Your task to perform on an android device: Go to privacy settings Image 0: 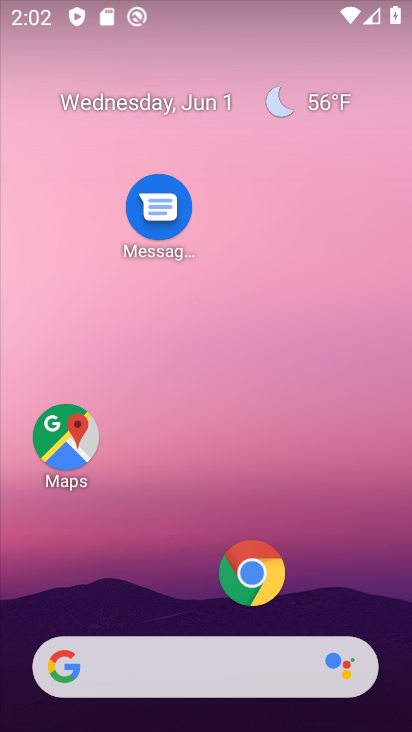
Step 0: drag from (297, 27) to (247, 2)
Your task to perform on an android device: Go to privacy settings Image 1: 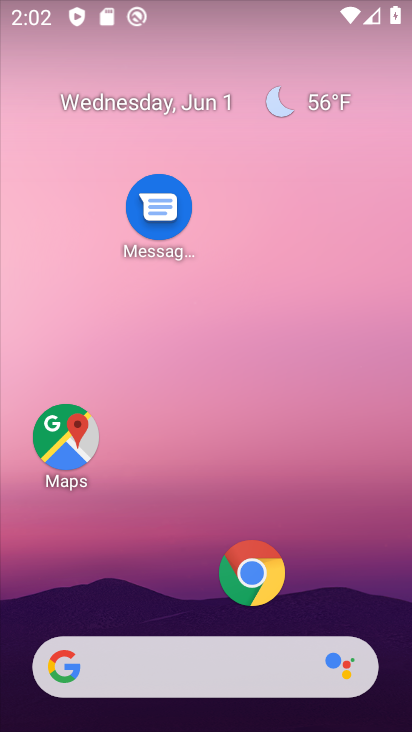
Step 1: click (208, 168)
Your task to perform on an android device: Go to privacy settings Image 2: 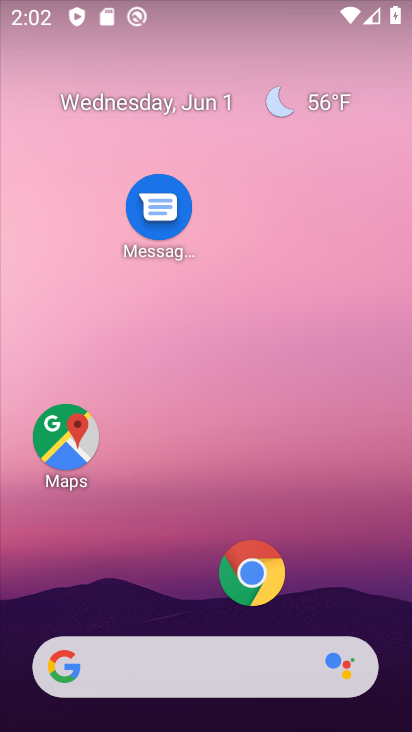
Step 2: drag from (221, 590) to (313, 143)
Your task to perform on an android device: Go to privacy settings Image 3: 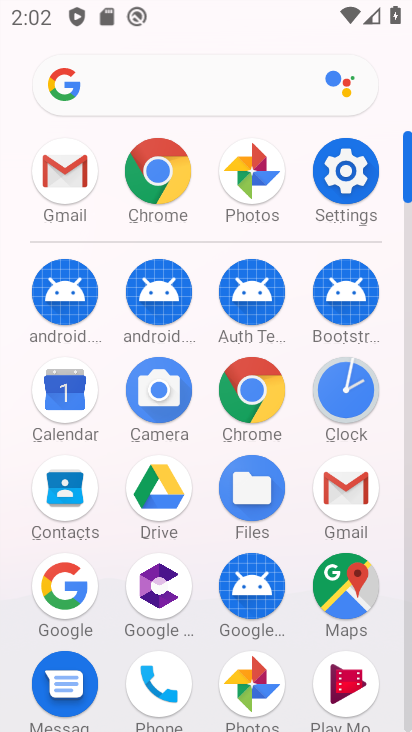
Step 3: click (354, 170)
Your task to perform on an android device: Go to privacy settings Image 4: 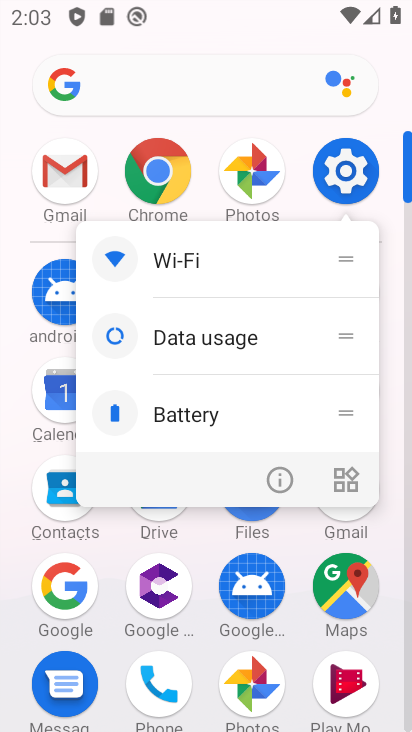
Step 4: click (280, 482)
Your task to perform on an android device: Go to privacy settings Image 5: 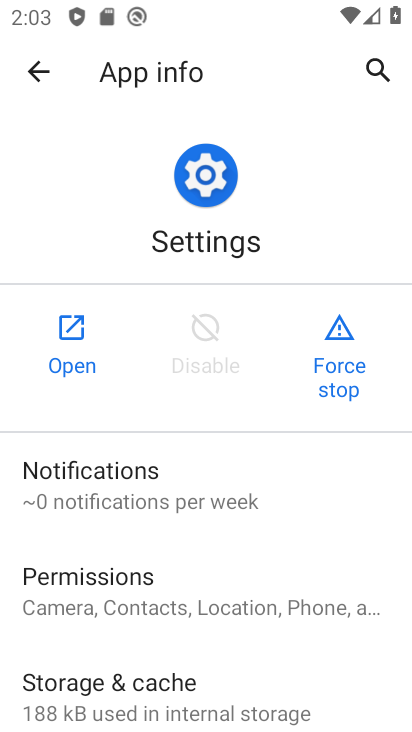
Step 5: click (79, 326)
Your task to perform on an android device: Go to privacy settings Image 6: 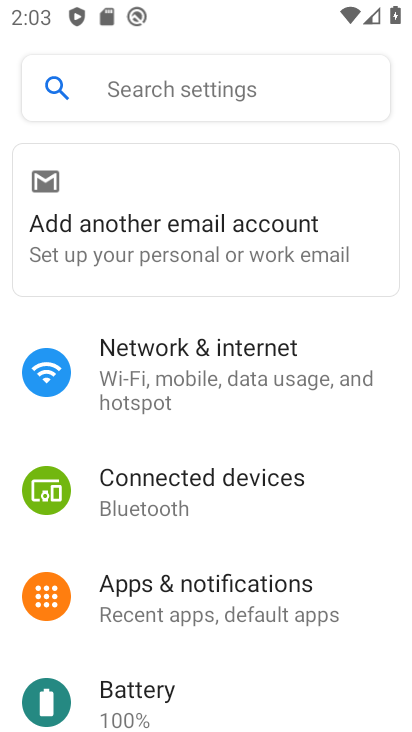
Step 6: drag from (172, 623) to (367, 179)
Your task to perform on an android device: Go to privacy settings Image 7: 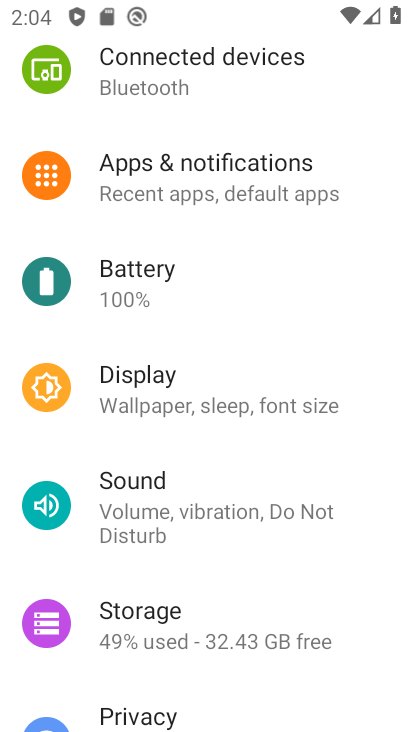
Step 7: drag from (190, 540) to (279, 210)
Your task to perform on an android device: Go to privacy settings Image 8: 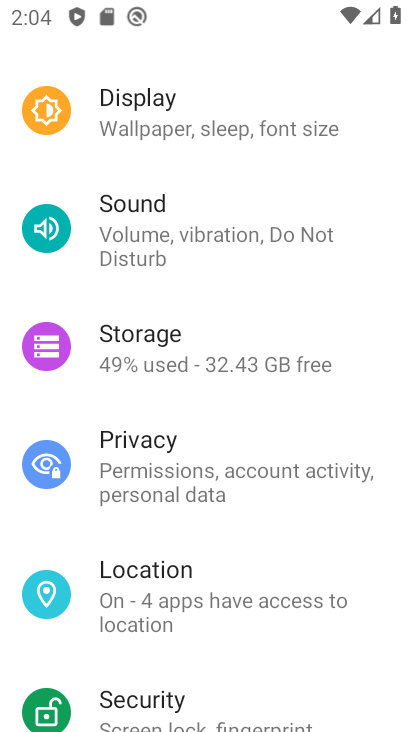
Step 8: click (185, 476)
Your task to perform on an android device: Go to privacy settings Image 9: 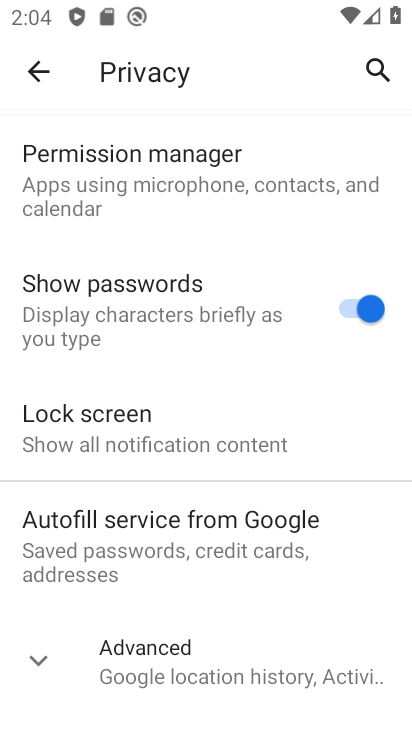
Step 9: task complete